Your task to perform on an android device: Open the map Image 0: 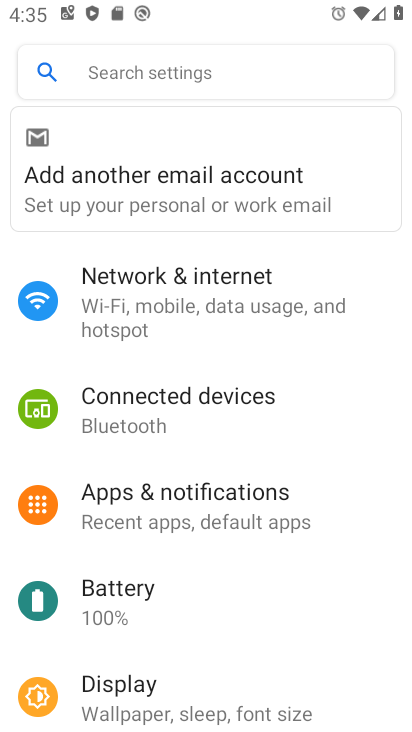
Step 0: press home button
Your task to perform on an android device: Open the map Image 1: 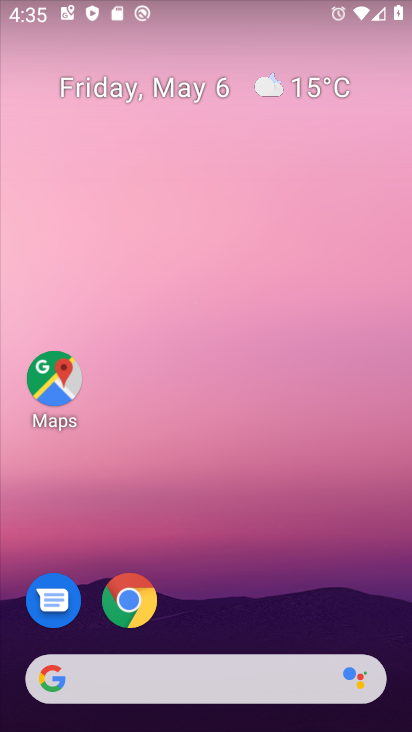
Step 1: click (66, 377)
Your task to perform on an android device: Open the map Image 2: 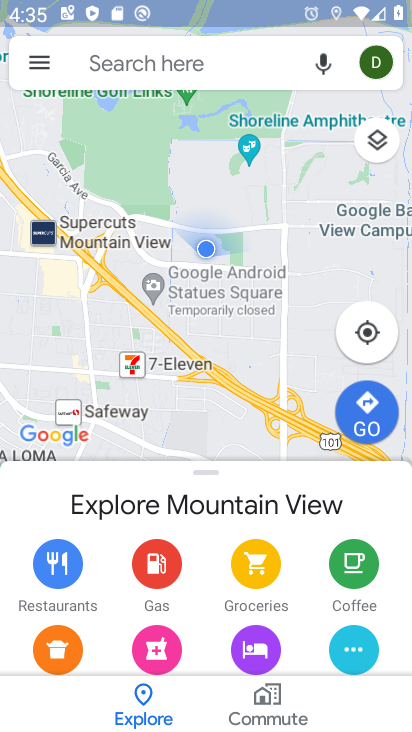
Step 2: task complete